Your task to perform on an android device: Open calendar and show me the third week of next month Image 0: 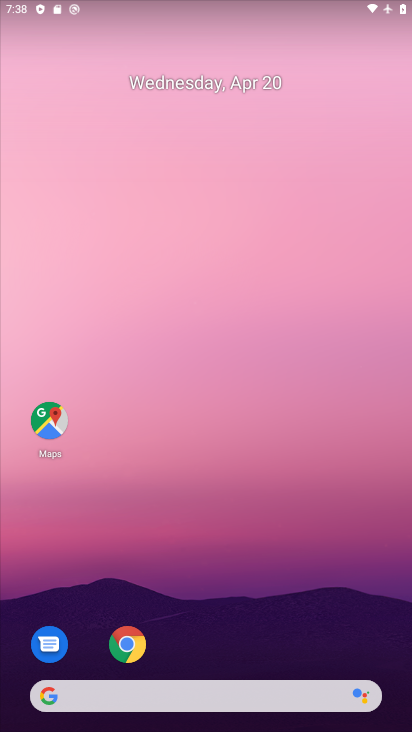
Step 0: drag from (307, 621) to (182, 46)
Your task to perform on an android device: Open calendar and show me the third week of next month Image 1: 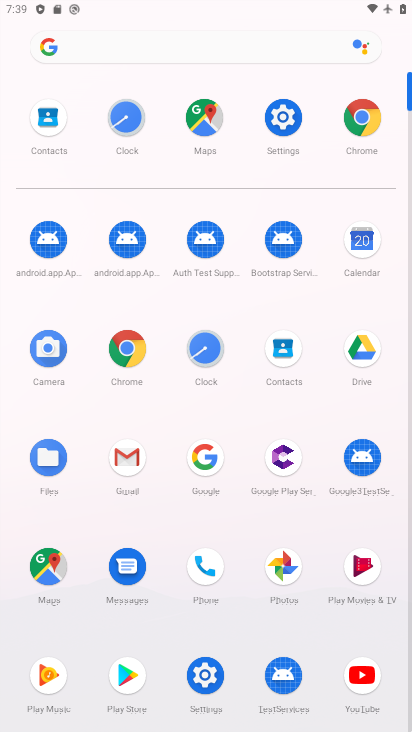
Step 1: click (361, 244)
Your task to perform on an android device: Open calendar and show me the third week of next month Image 2: 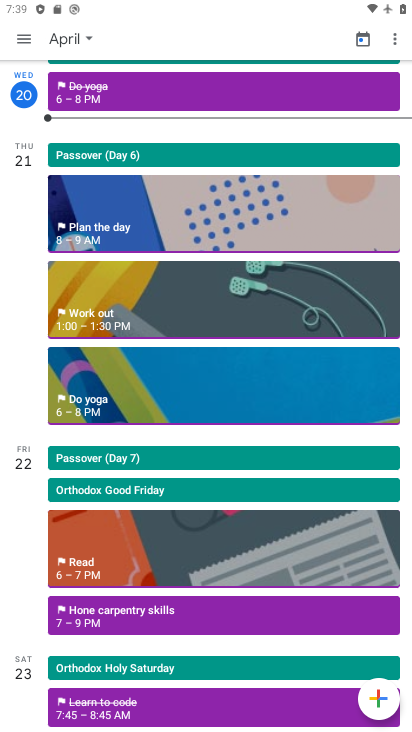
Step 2: click (63, 32)
Your task to perform on an android device: Open calendar and show me the third week of next month Image 3: 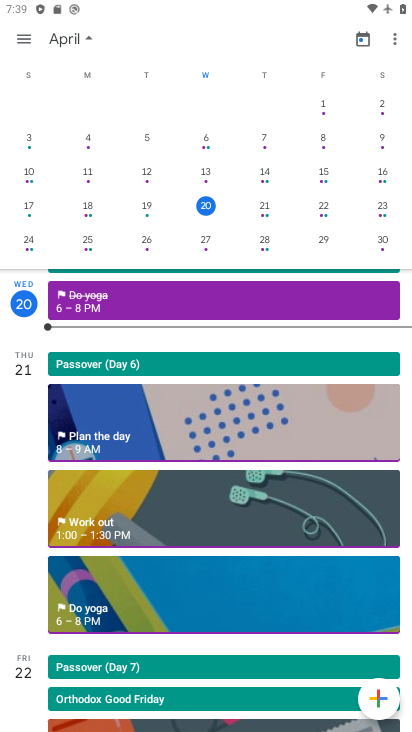
Step 3: drag from (369, 207) to (7, 157)
Your task to perform on an android device: Open calendar and show me the third week of next month Image 4: 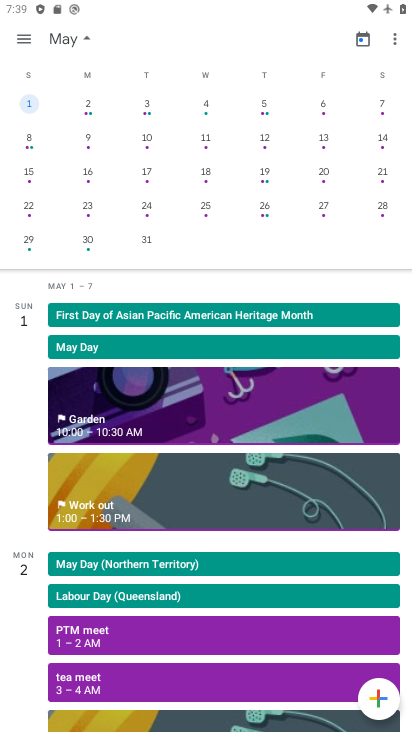
Step 4: click (270, 175)
Your task to perform on an android device: Open calendar and show me the third week of next month Image 5: 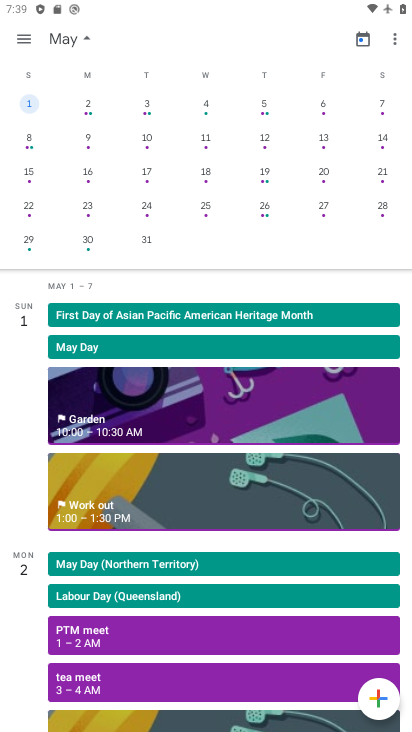
Step 5: click (257, 174)
Your task to perform on an android device: Open calendar and show me the third week of next month Image 6: 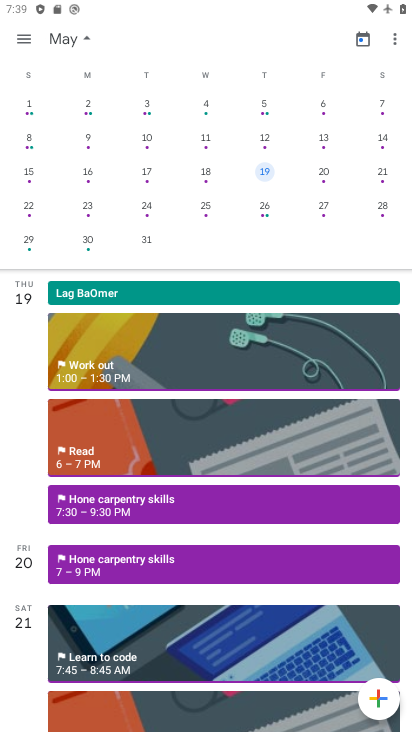
Step 6: click (264, 172)
Your task to perform on an android device: Open calendar and show me the third week of next month Image 7: 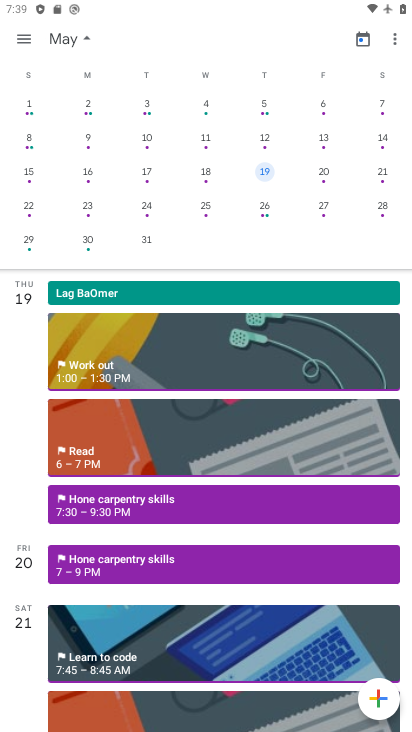
Step 7: task complete